Your task to perform on an android device: Search for sushi restaurants on Maps Image 0: 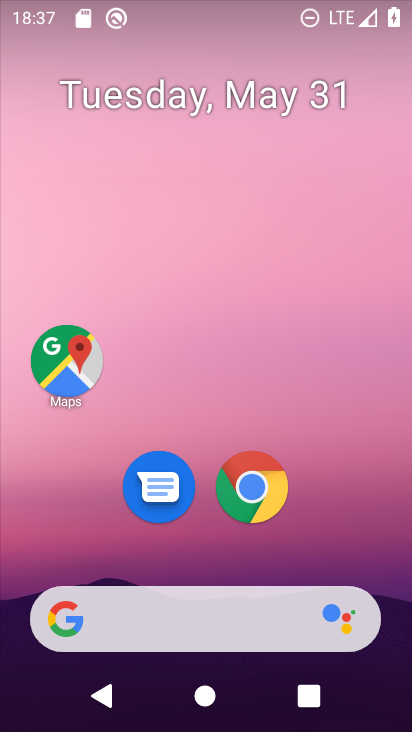
Step 0: click (58, 366)
Your task to perform on an android device: Search for sushi restaurants on Maps Image 1: 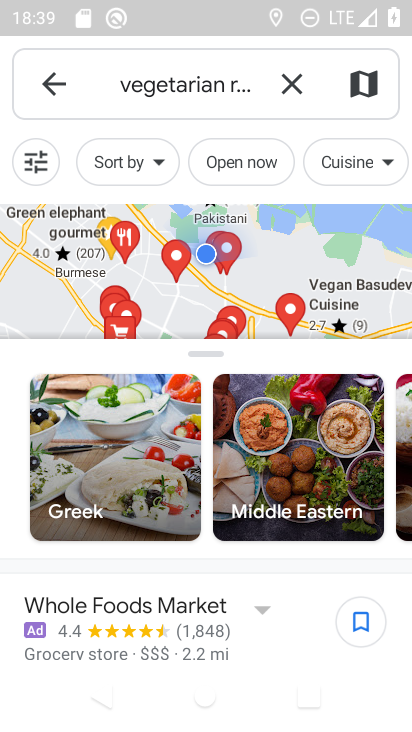
Step 1: click (289, 75)
Your task to perform on an android device: Search for sushi restaurants on Maps Image 2: 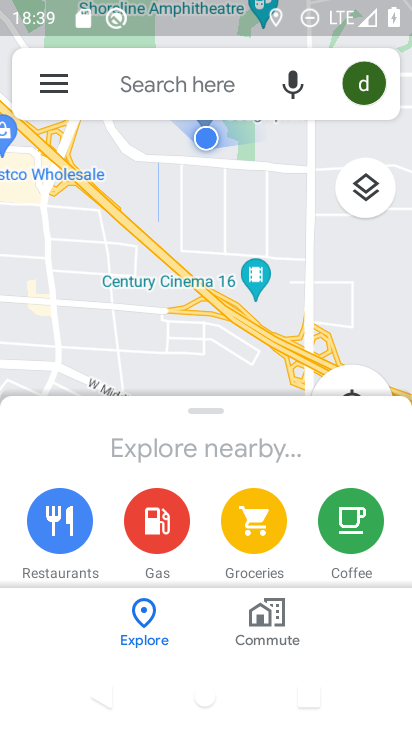
Step 2: click (193, 81)
Your task to perform on an android device: Search for sushi restaurants on Maps Image 3: 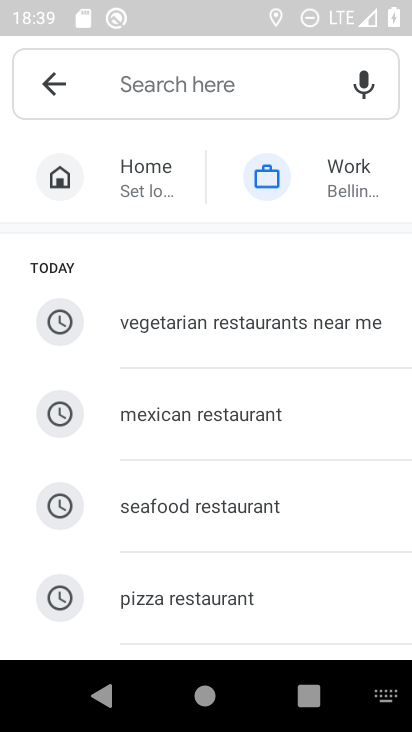
Step 3: type "sushi"
Your task to perform on an android device: Search for sushi restaurants on Maps Image 4: 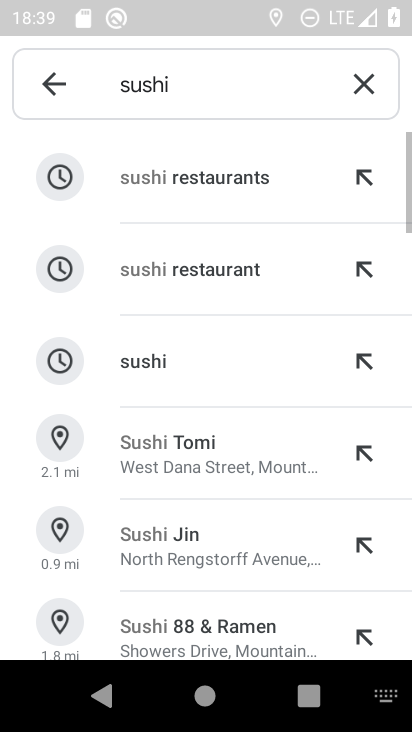
Step 4: click (159, 162)
Your task to perform on an android device: Search for sushi restaurants on Maps Image 5: 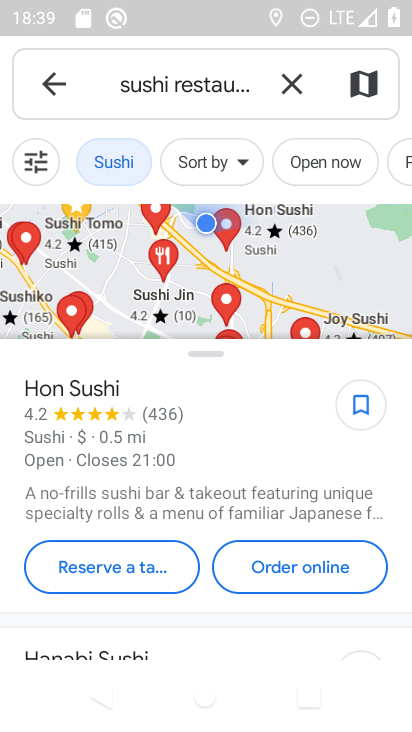
Step 5: task complete